Your task to perform on an android device: What's the weather? Image 0: 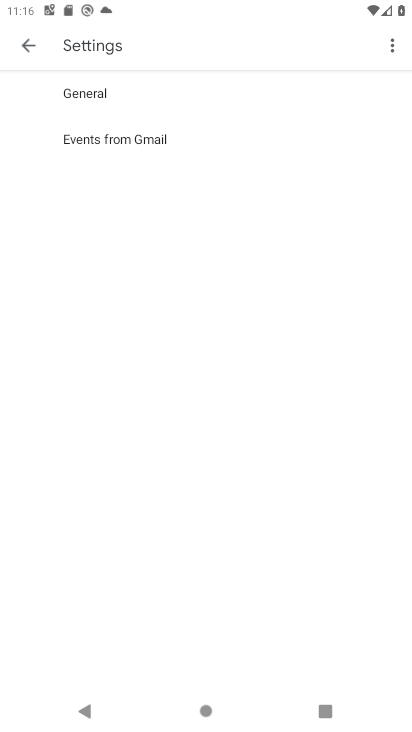
Step 0: press home button
Your task to perform on an android device: What's the weather? Image 1: 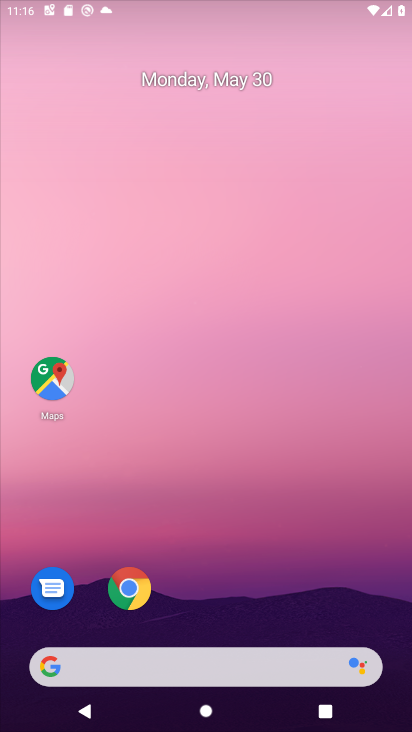
Step 1: drag from (326, 709) to (305, 150)
Your task to perform on an android device: What's the weather? Image 2: 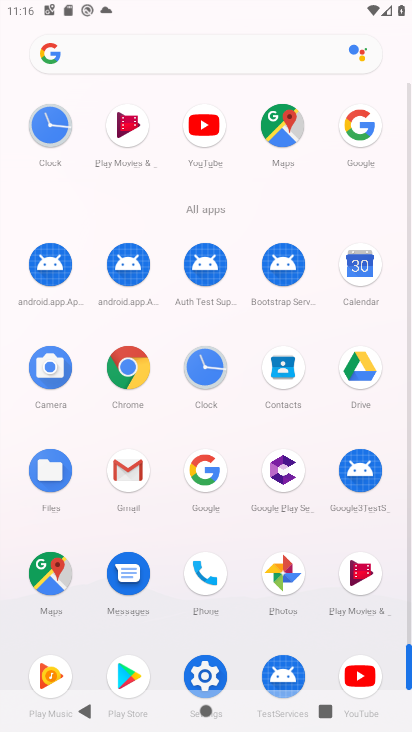
Step 2: press home button
Your task to perform on an android device: What's the weather? Image 3: 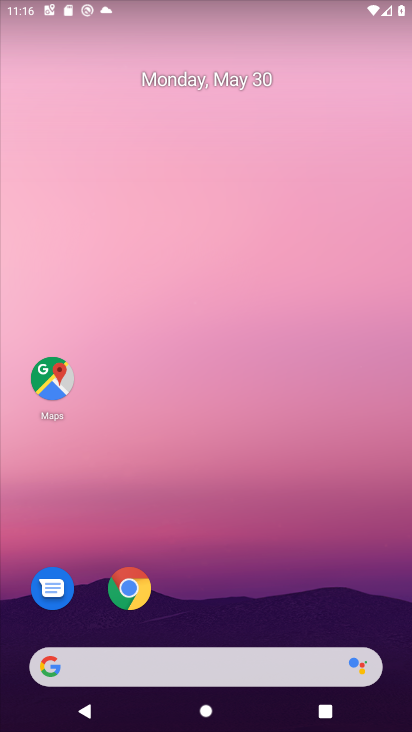
Step 3: drag from (172, 234) to (388, 271)
Your task to perform on an android device: What's the weather? Image 4: 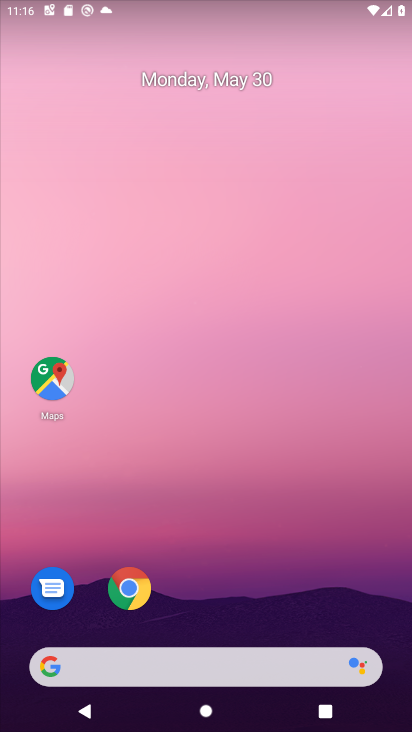
Step 4: drag from (84, 273) to (406, 346)
Your task to perform on an android device: What's the weather? Image 5: 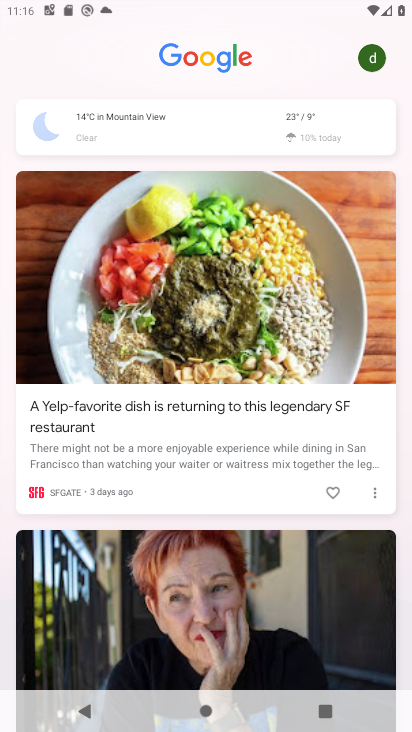
Step 5: click (254, 114)
Your task to perform on an android device: What's the weather? Image 6: 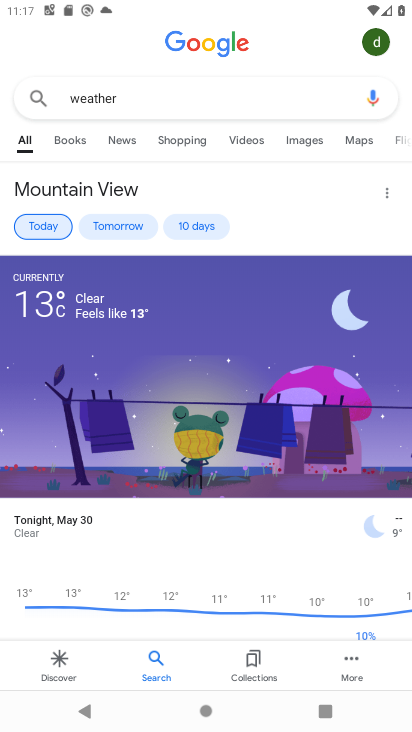
Step 6: task complete